Your task to perform on an android device: choose inbox layout in the gmail app Image 0: 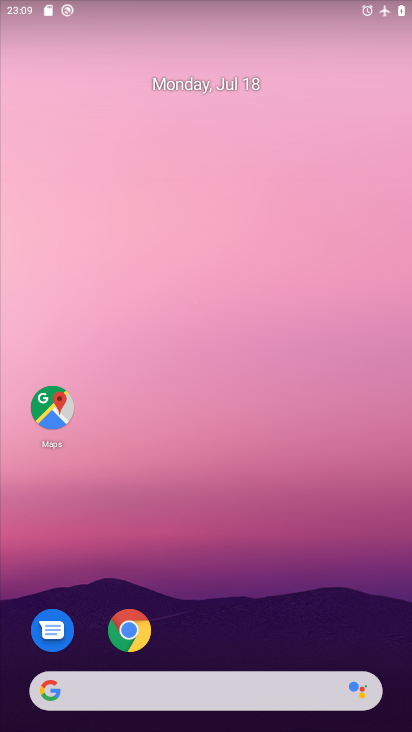
Step 0: drag from (153, 571) to (177, 68)
Your task to perform on an android device: choose inbox layout in the gmail app Image 1: 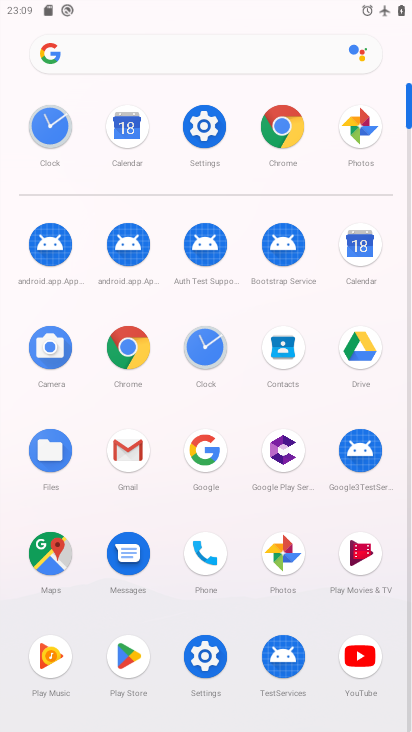
Step 1: click (128, 449)
Your task to perform on an android device: choose inbox layout in the gmail app Image 2: 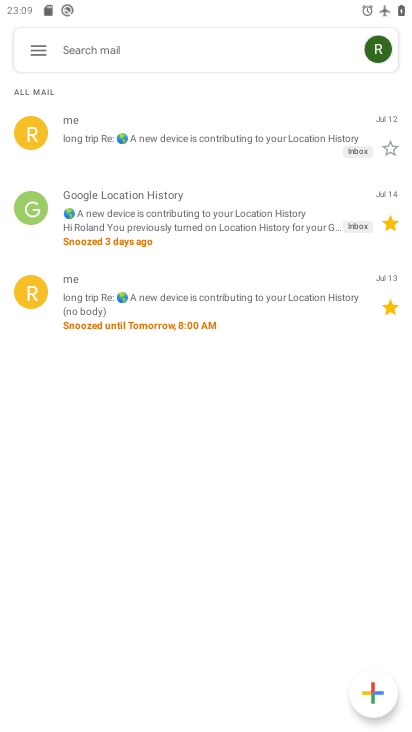
Step 2: click (23, 48)
Your task to perform on an android device: choose inbox layout in the gmail app Image 3: 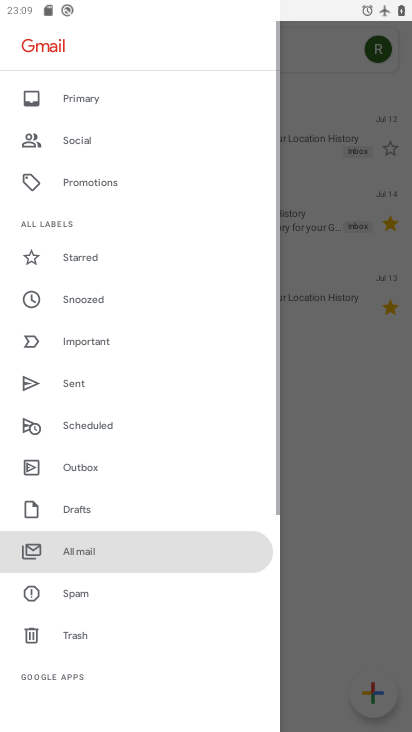
Step 3: drag from (150, 673) to (178, 289)
Your task to perform on an android device: choose inbox layout in the gmail app Image 4: 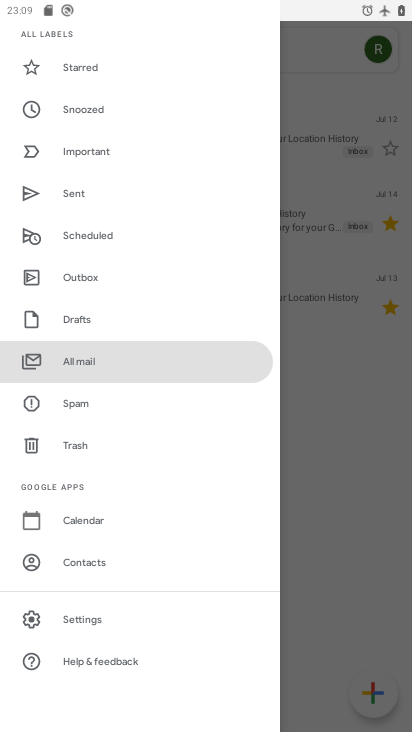
Step 4: click (108, 623)
Your task to perform on an android device: choose inbox layout in the gmail app Image 5: 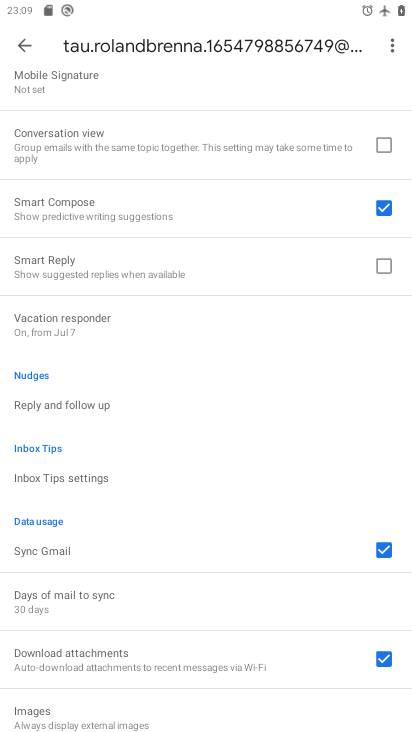
Step 5: click (25, 51)
Your task to perform on an android device: choose inbox layout in the gmail app Image 6: 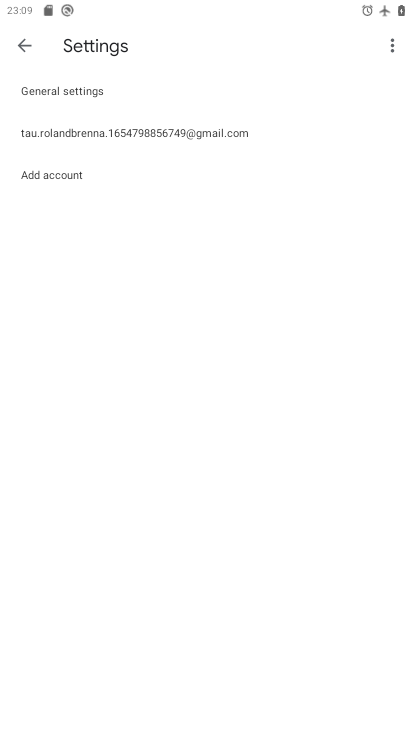
Step 6: click (64, 138)
Your task to perform on an android device: choose inbox layout in the gmail app Image 7: 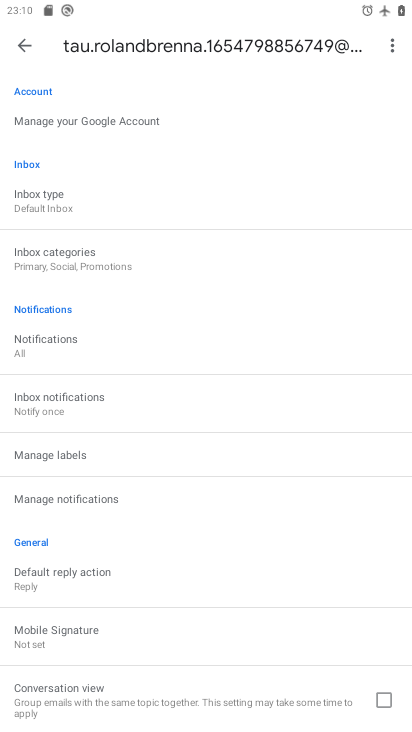
Step 7: click (51, 198)
Your task to perform on an android device: choose inbox layout in the gmail app Image 8: 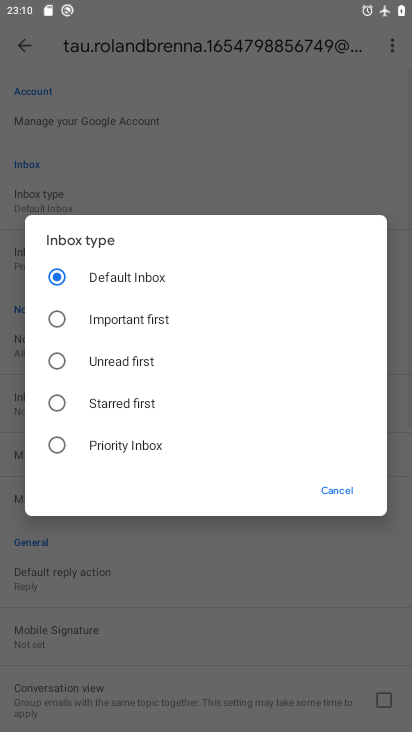
Step 8: click (92, 353)
Your task to perform on an android device: choose inbox layout in the gmail app Image 9: 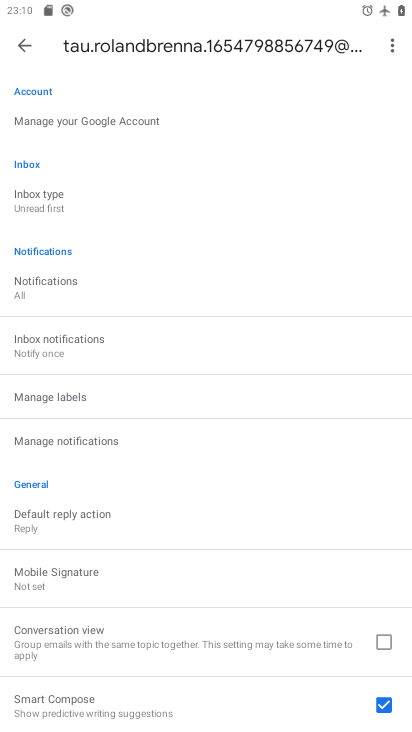
Step 9: task complete